Your task to perform on an android device: make emails show in primary in the gmail app Image 0: 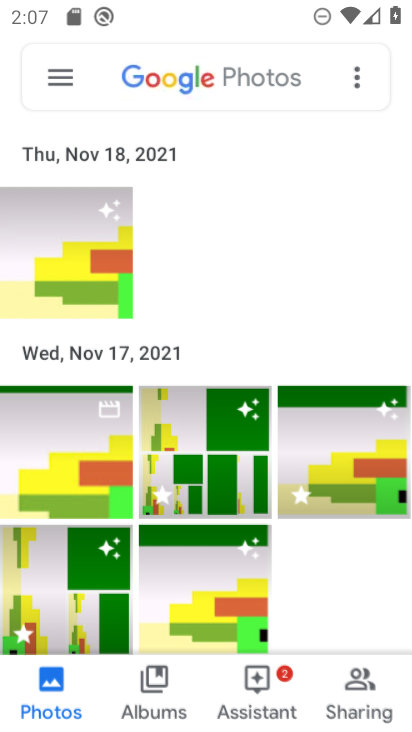
Step 0: drag from (393, 335) to (25, 220)
Your task to perform on an android device: make emails show in primary in the gmail app Image 1: 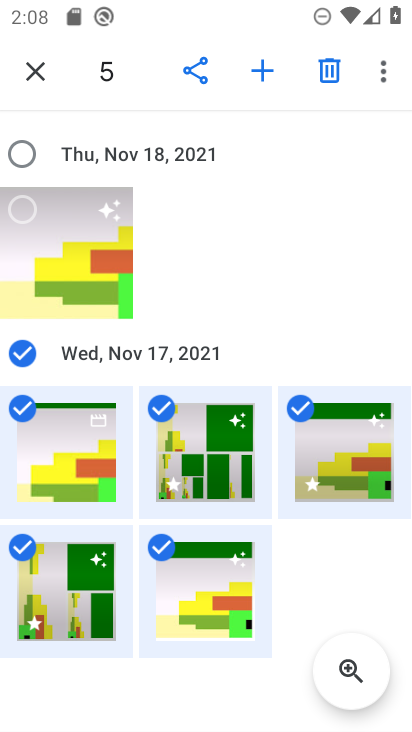
Step 1: click (197, 277)
Your task to perform on an android device: make emails show in primary in the gmail app Image 2: 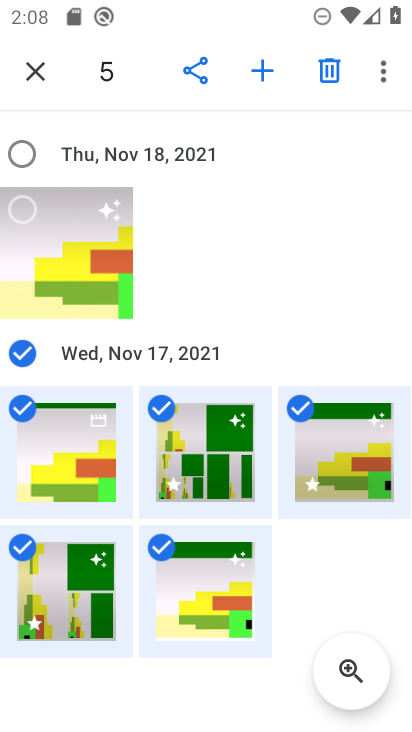
Step 2: click (214, 269)
Your task to perform on an android device: make emails show in primary in the gmail app Image 3: 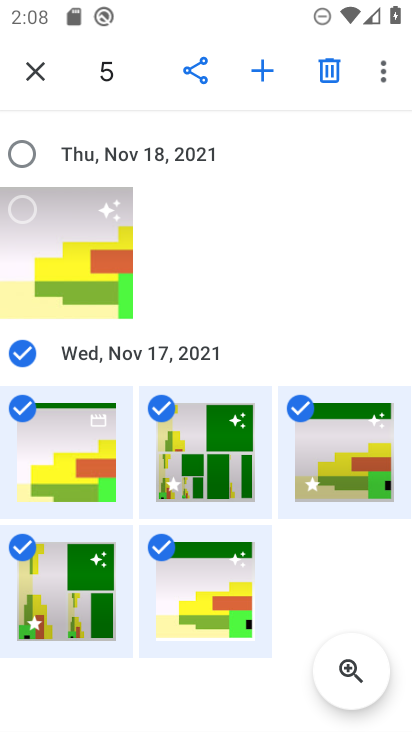
Step 3: click (230, 279)
Your task to perform on an android device: make emails show in primary in the gmail app Image 4: 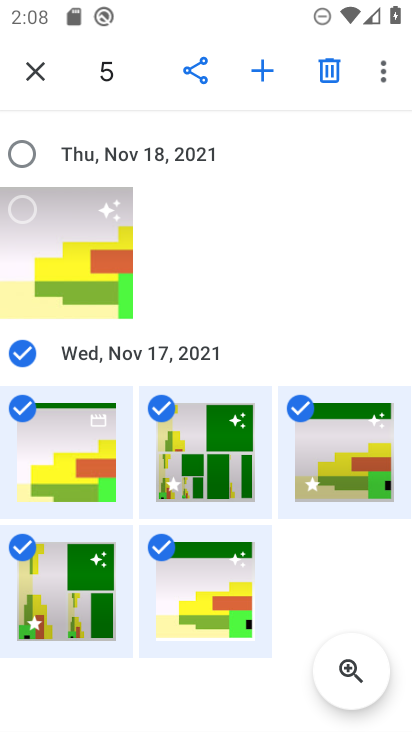
Step 4: click (238, 279)
Your task to perform on an android device: make emails show in primary in the gmail app Image 5: 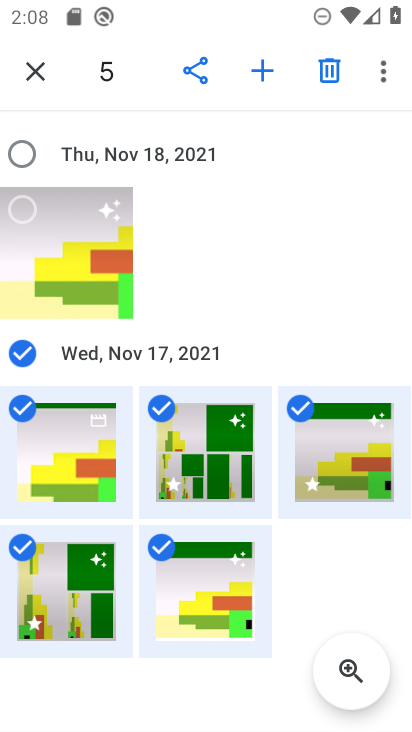
Step 5: click (239, 280)
Your task to perform on an android device: make emails show in primary in the gmail app Image 6: 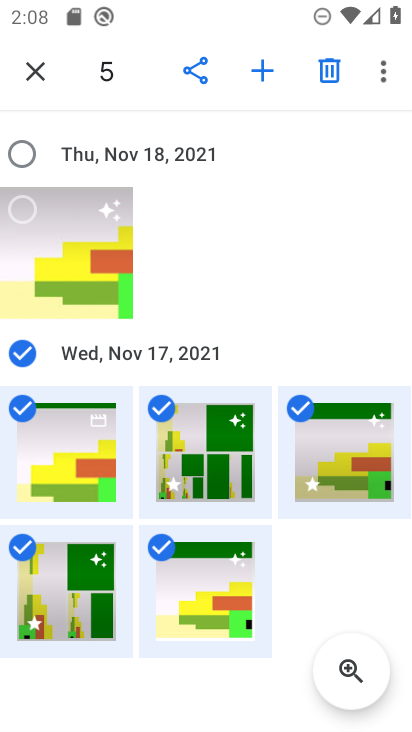
Step 6: click (243, 283)
Your task to perform on an android device: make emails show in primary in the gmail app Image 7: 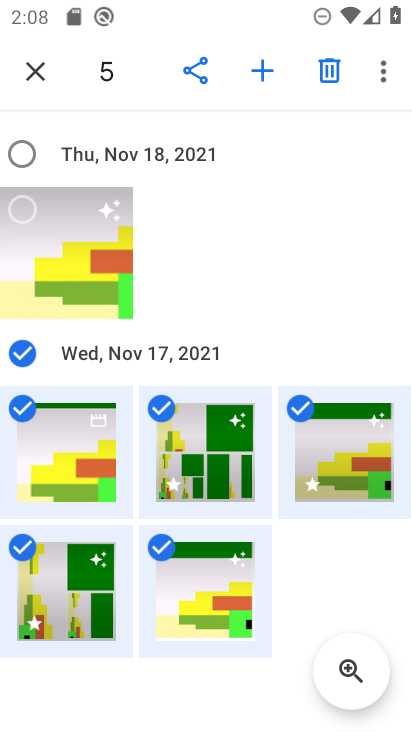
Step 7: drag from (356, 357) to (233, 89)
Your task to perform on an android device: make emails show in primary in the gmail app Image 8: 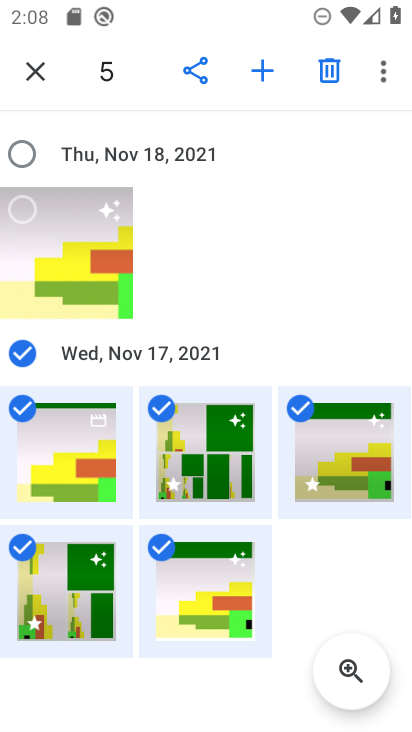
Step 8: click (254, 271)
Your task to perform on an android device: make emails show in primary in the gmail app Image 9: 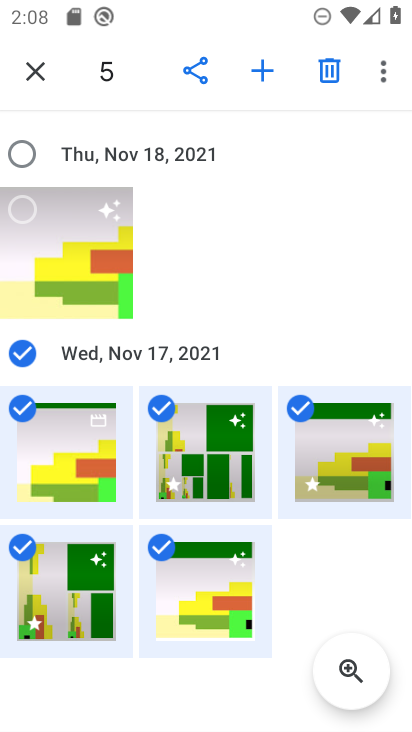
Step 9: click (253, 270)
Your task to perform on an android device: make emails show in primary in the gmail app Image 10: 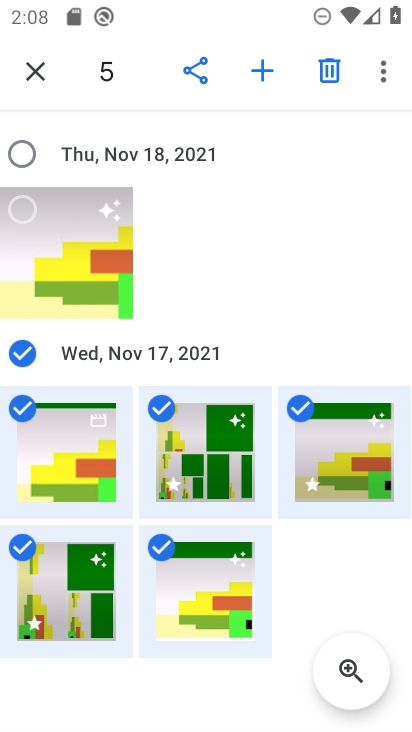
Step 10: press back button
Your task to perform on an android device: make emails show in primary in the gmail app Image 11: 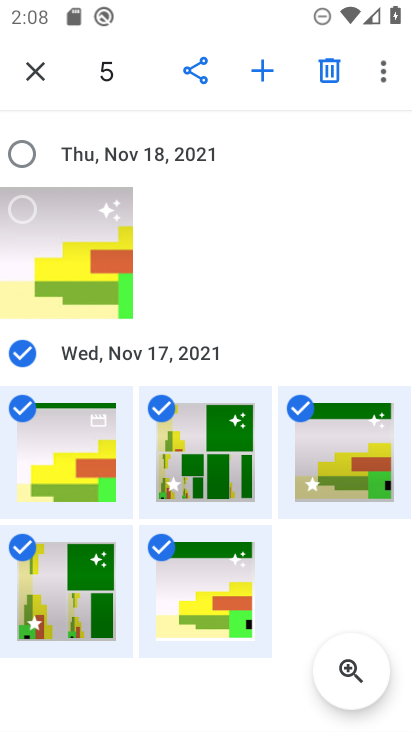
Step 11: press back button
Your task to perform on an android device: make emails show in primary in the gmail app Image 12: 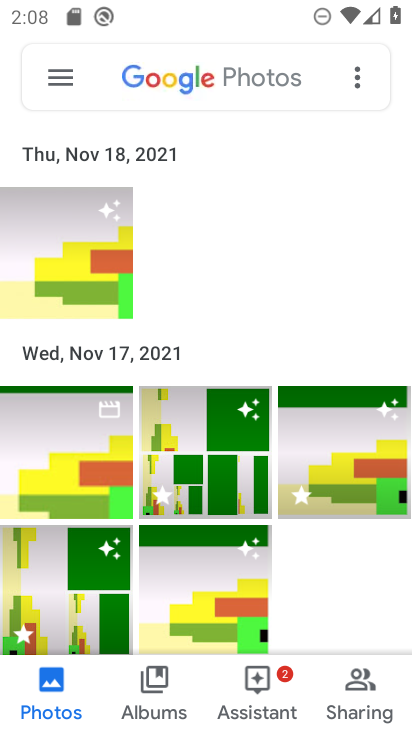
Step 12: press back button
Your task to perform on an android device: make emails show in primary in the gmail app Image 13: 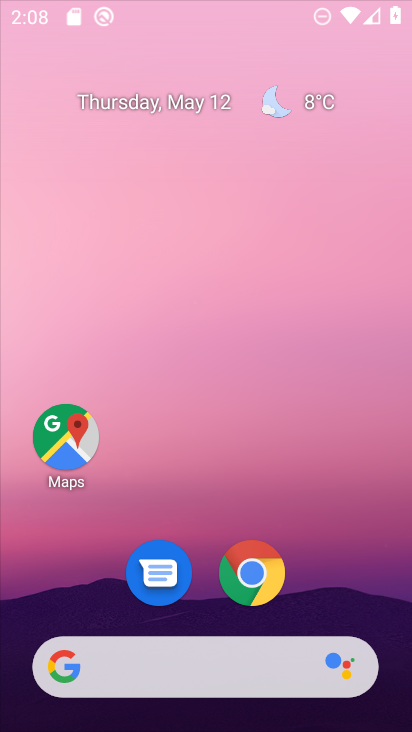
Step 13: press back button
Your task to perform on an android device: make emails show in primary in the gmail app Image 14: 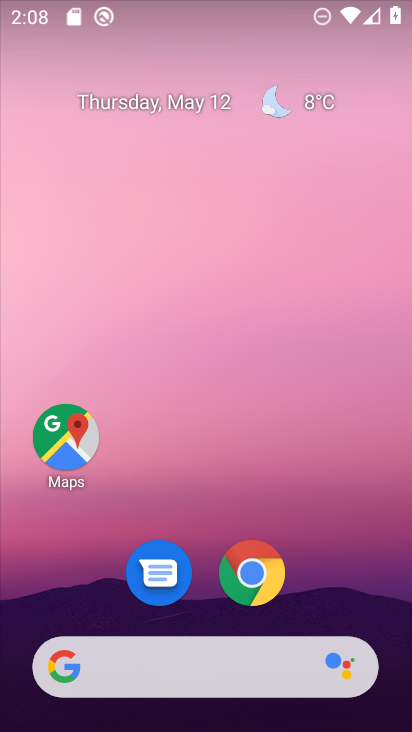
Step 14: drag from (379, 617) to (159, 11)
Your task to perform on an android device: make emails show in primary in the gmail app Image 15: 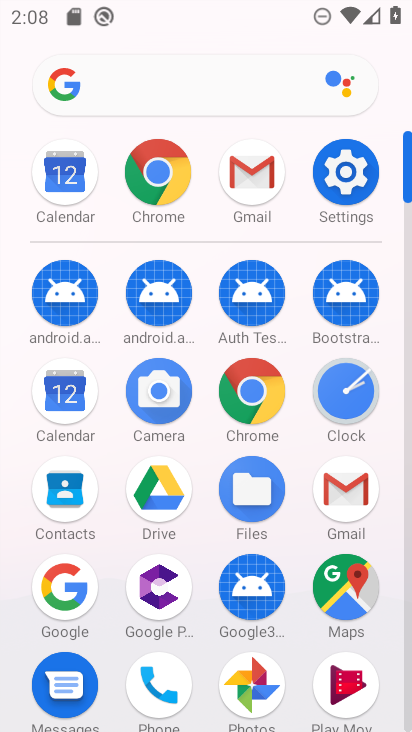
Step 15: click (345, 478)
Your task to perform on an android device: make emails show in primary in the gmail app Image 16: 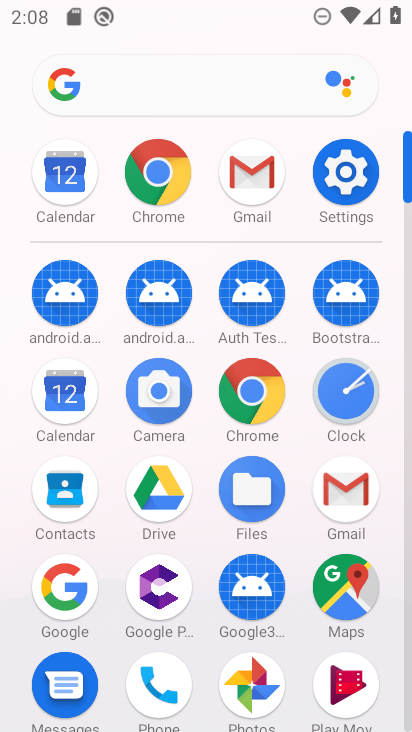
Step 16: click (354, 482)
Your task to perform on an android device: make emails show in primary in the gmail app Image 17: 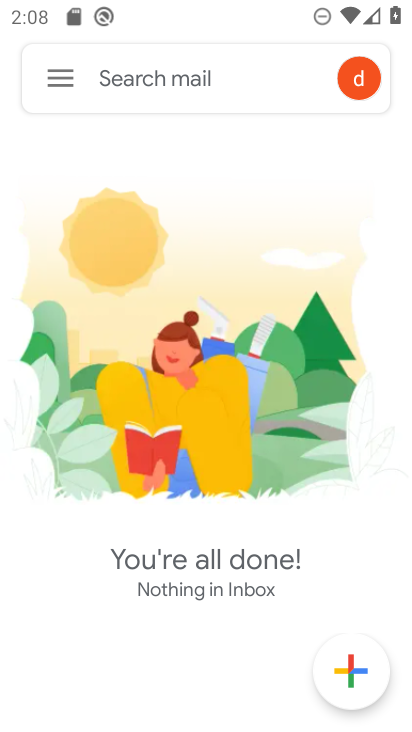
Step 17: click (58, 83)
Your task to perform on an android device: make emails show in primary in the gmail app Image 18: 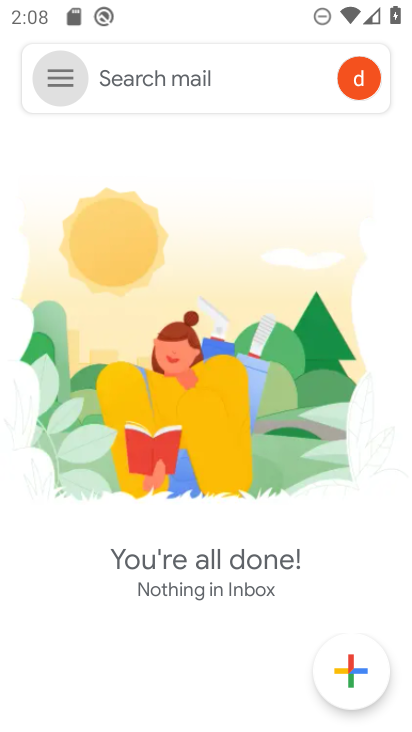
Step 18: drag from (58, 83) to (106, 175)
Your task to perform on an android device: make emails show in primary in the gmail app Image 19: 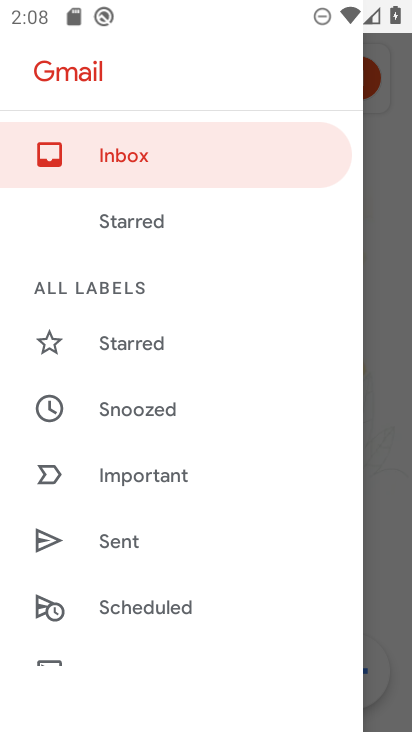
Step 19: drag from (147, 484) to (128, 24)
Your task to perform on an android device: make emails show in primary in the gmail app Image 20: 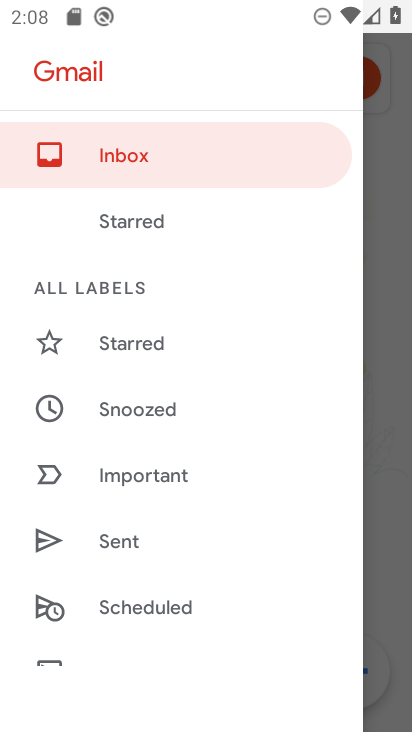
Step 20: drag from (187, 405) to (128, 97)
Your task to perform on an android device: make emails show in primary in the gmail app Image 21: 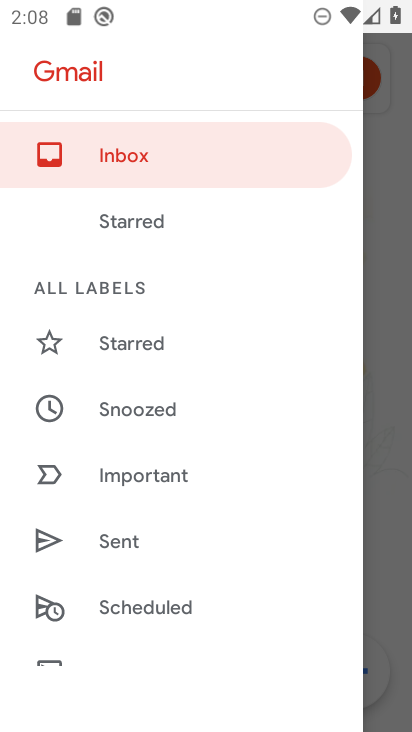
Step 21: drag from (188, 425) to (85, 25)
Your task to perform on an android device: make emails show in primary in the gmail app Image 22: 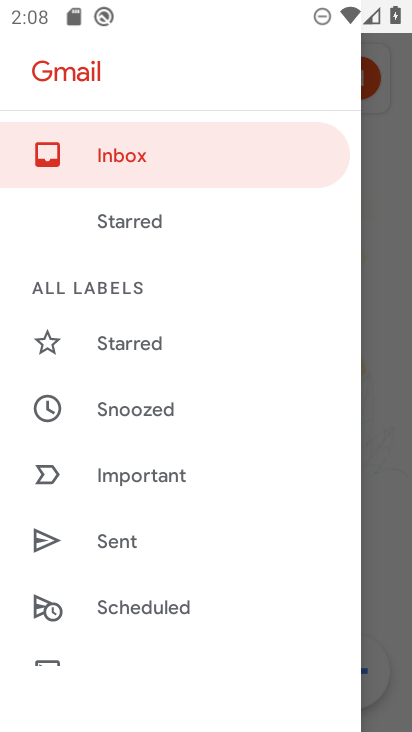
Step 22: drag from (45, 473) to (57, 58)
Your task to perform on an android device: make emails show in primary in the gmail app Image 23: 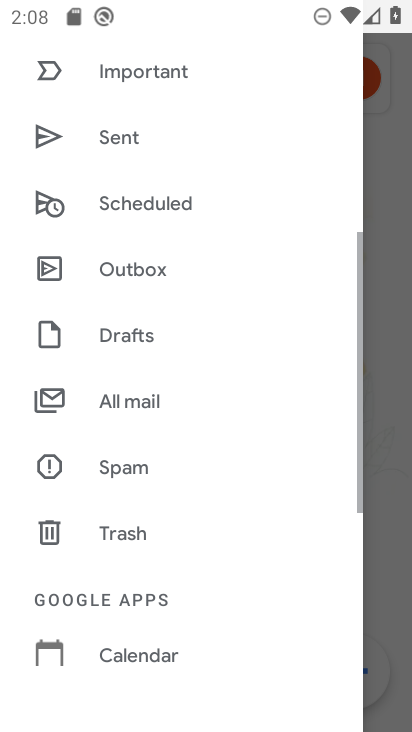
Step 23: drag from (201, 539) to (140, 200)
Your task to perform on an android device: make emails show in primary in the gmail app Image 24: 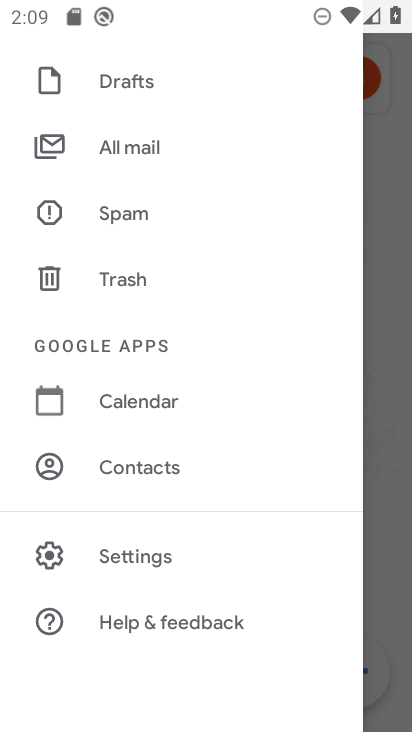
Step 24: click (126, 554)
Your task to perform on an android device: make emails show in primary in the gmail app Image 25: 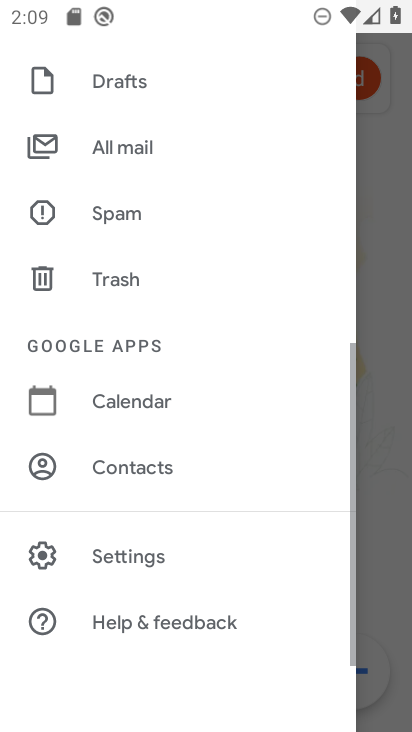
Step 25: click (126, 555)
Your task to perform on an android device: make emails show in primary in the gmail app Image 26: 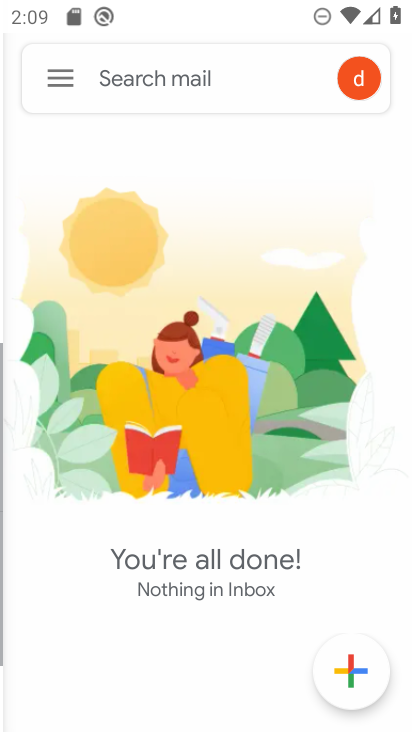
Step 26: click (126, 555)
Your task to perform on an android device: make emails show in primary in the gmail app Image 27: 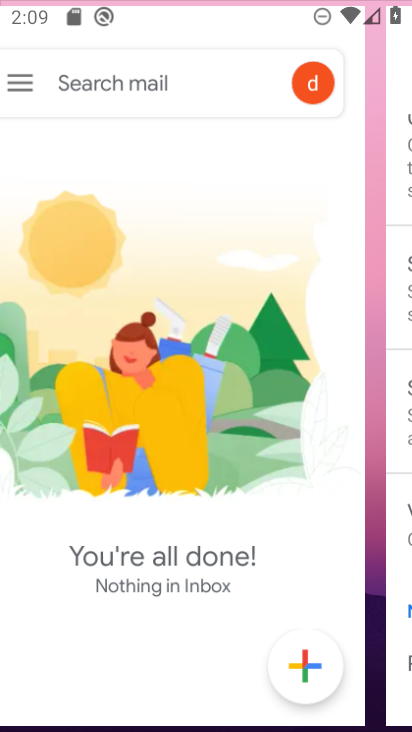
Step 27: click (128, 558)
Your task to perform on an android device: make emails show in primary in the gmail app Image 28: 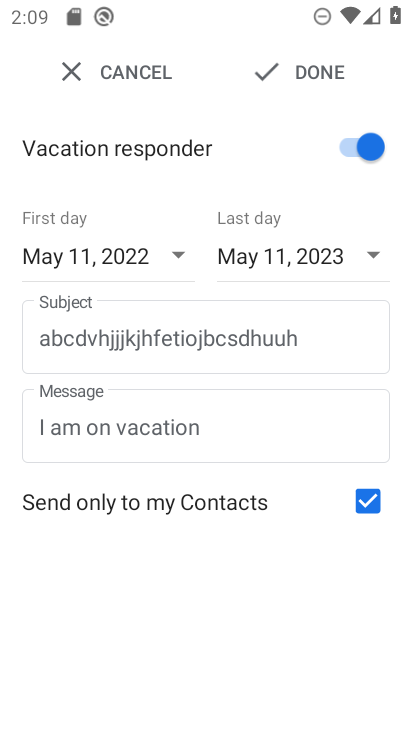
Step 28: click (69, 67)
Your task to perform on an android device: make emails show in primary in the gmail app Image 29: 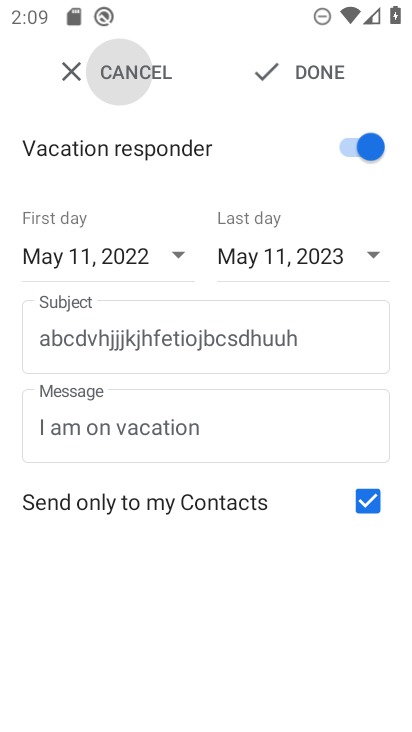
Step 29: click (70, 67)
Your task to perform on an android device: make emails show in primary in the gmail app Image 30: 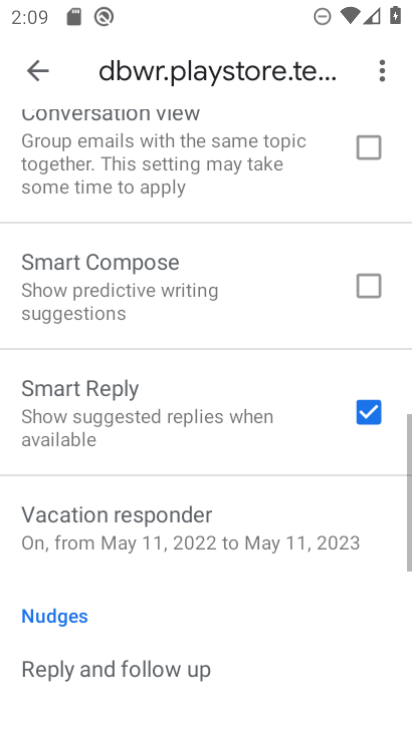
Step 30: click (70, 67)
Your task to perform on an android device: make emails show in primary in the gmail app Image 31: 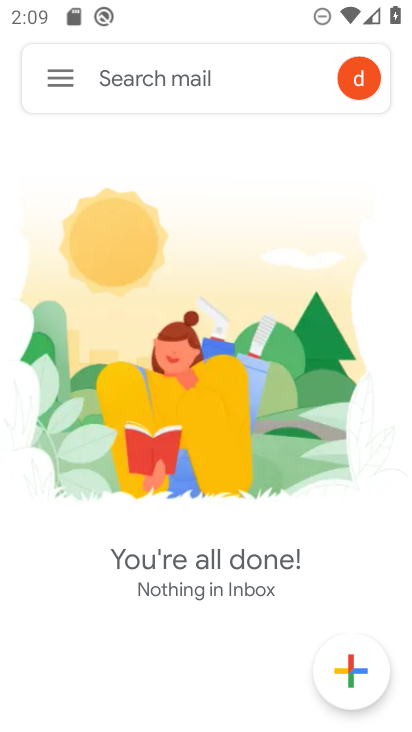
Step 31: click (62, 85)
Your task to perform on an android device: make emails show in primary in the gmail app Image 32: 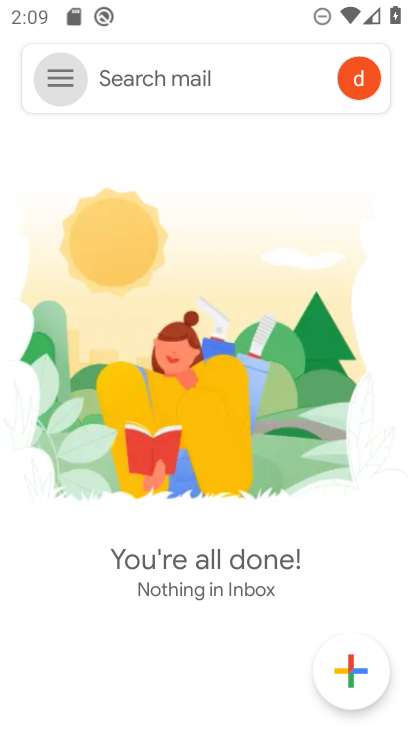
Step 32: click (62, 85)
Your task to perform on an android device: make emails show in primary in the gmail app Image 33: 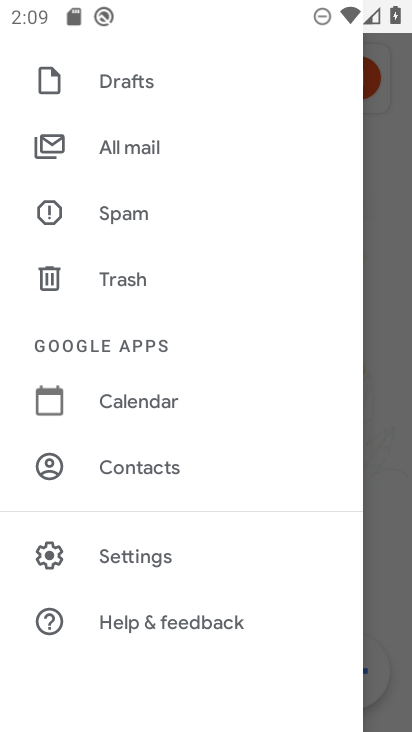
Step 33: click (139, 564)
Your task to perform on an android device: make emails show in primary in the gmail app Image 34: 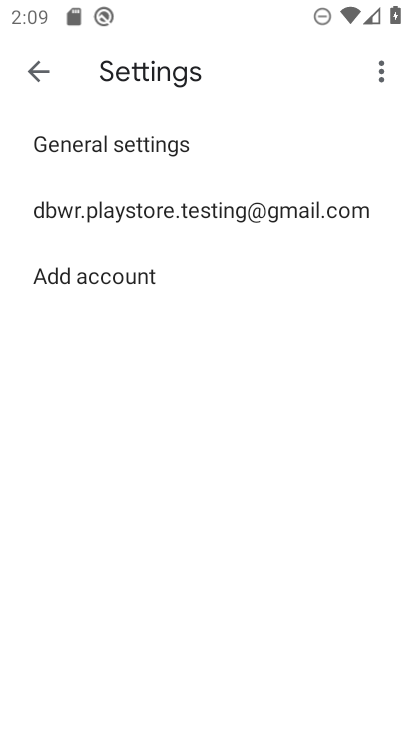
Step 34: click (97, 210)
Your task to perform on an android device: make emails show in primary in the gmail app Image 35: 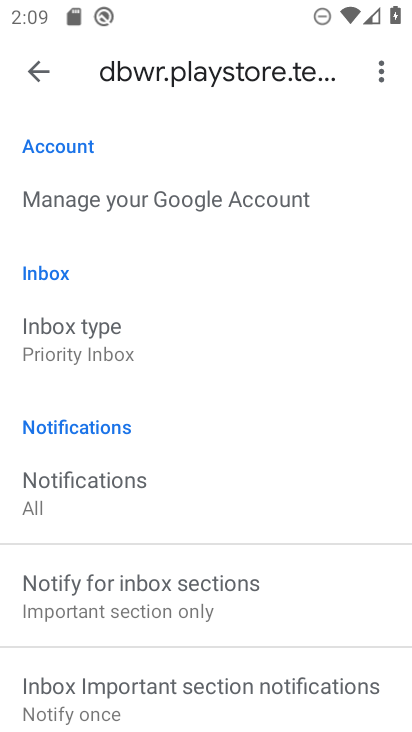
Step 35: click (79, 347)
Your task to perform on an android device: make emails show in primary in the gmail app Image 36: 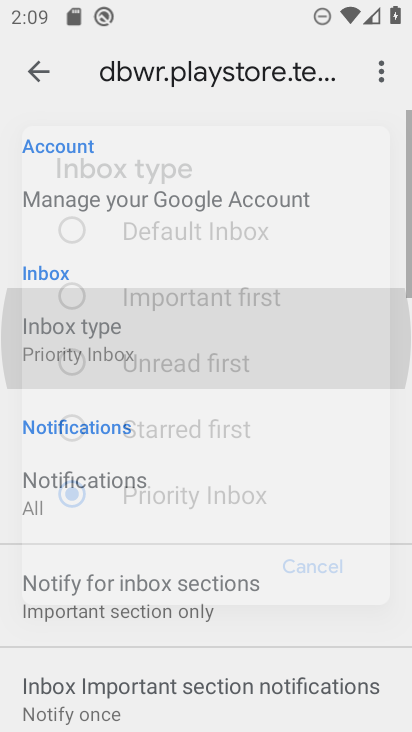
Step 36: click (79, 347)
Your task to perform on an android device: make emails show in primary in the gmail app Image 37: 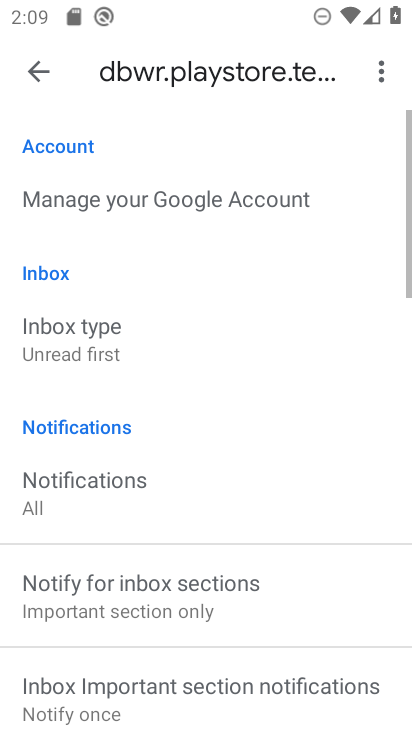
Step 37: click (79, 345)
Your task to perform on an android device: make emails show in primary in the gmail app Image 38: 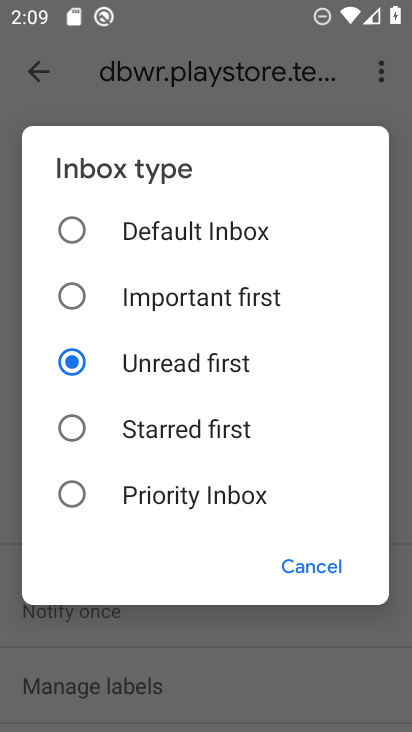
Step 38: click (105, 519)
Your task to perform on an android device: make emails show in primary in the gmail app Image 39: 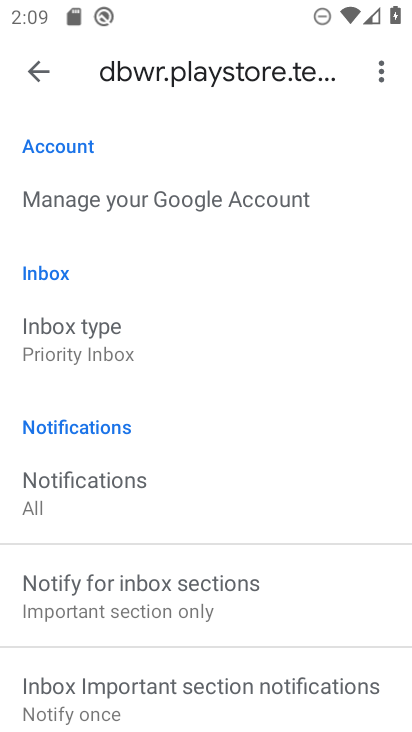
Step 39: click (68, 346)
Your task to perform on an android device: make emails show in primary in the gmail app Image 40: 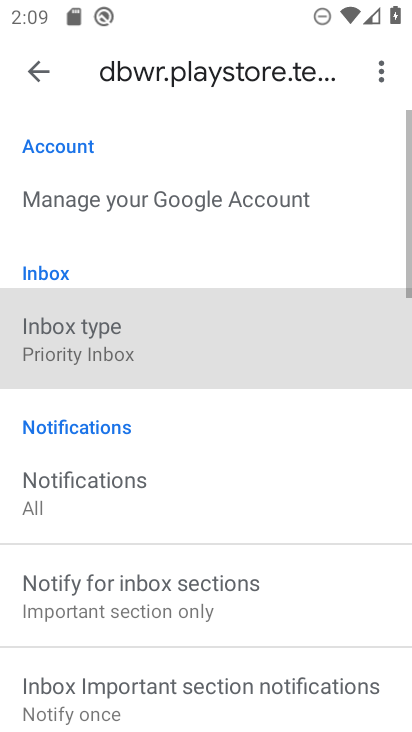
Step 40: click (69, 347)
Your task to perform on an android device: make emails show in primary in the gmail app Image 41: 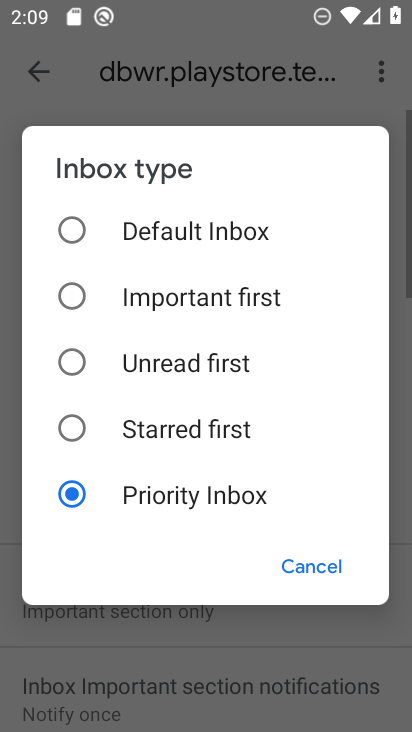
Step 41: click (70, 350)
Your task to perform on an android device: make emails show in primary in the gmail app Image 42: 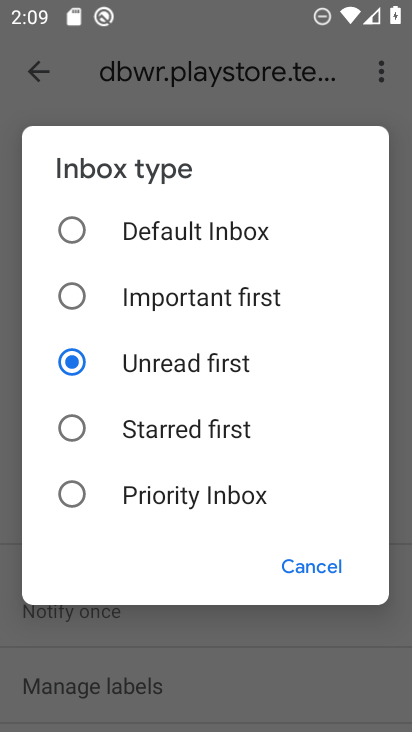
Step 42: click (78, 493)
Your task to perform on an android device: make emails show in primary in the gmail app Image 43: 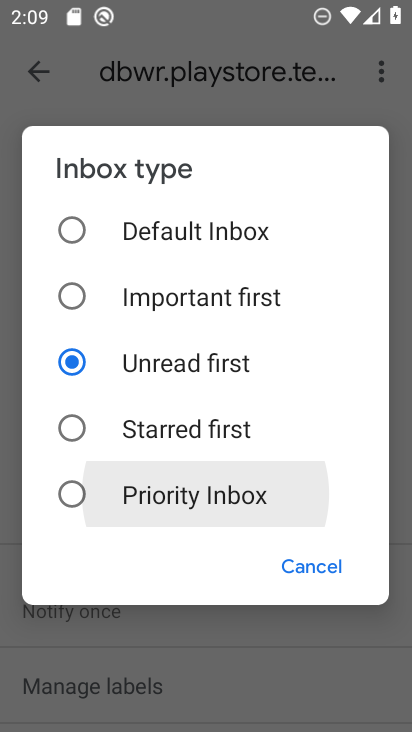
Step 43: click (73, 484)
Your task to perform on an android device: make emails show in primary in the gmail app Image 44: 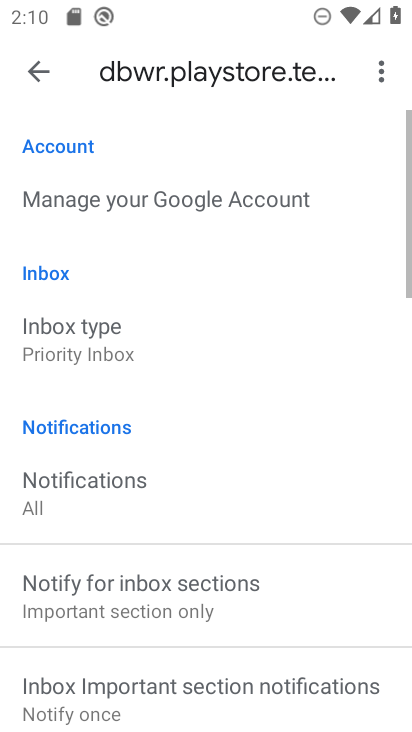
Step 44: click (71, 484)
Your task to perform on an android device: make emails show in primary in the gmail app Image 45: 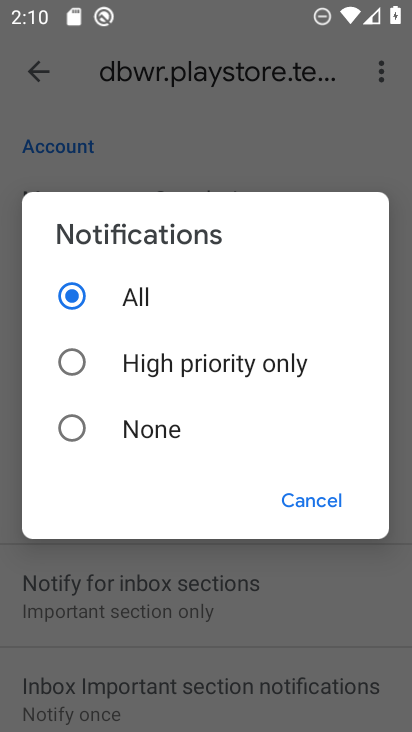
Step 45: click (318, 497)
Your task to perform on an android device: make emails show in primary in the gmail app Image 46: 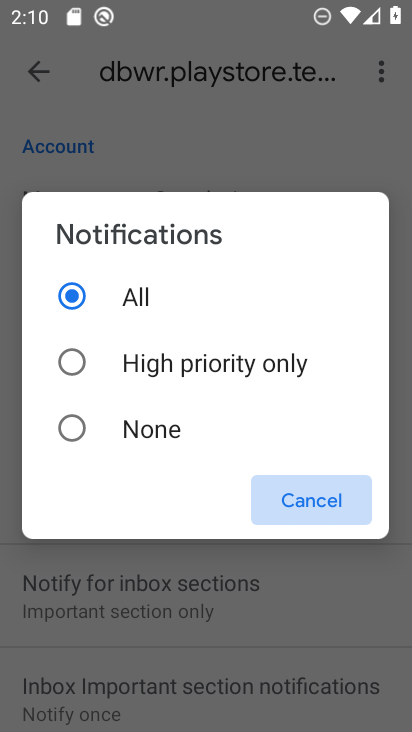
Step 46: click (315, 493)
Your task to perform on an android device: make emails show in primary in the gmail app Image 47: 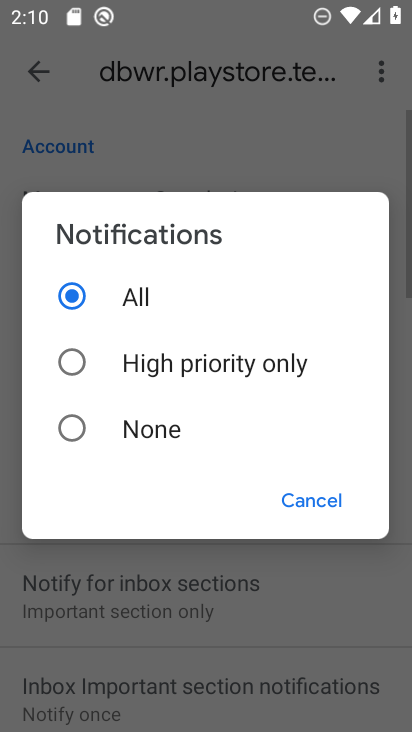
Step 47: click (323, 494)
Your task to perform on an android device: make emails show in primary in the gmail app Image 48: 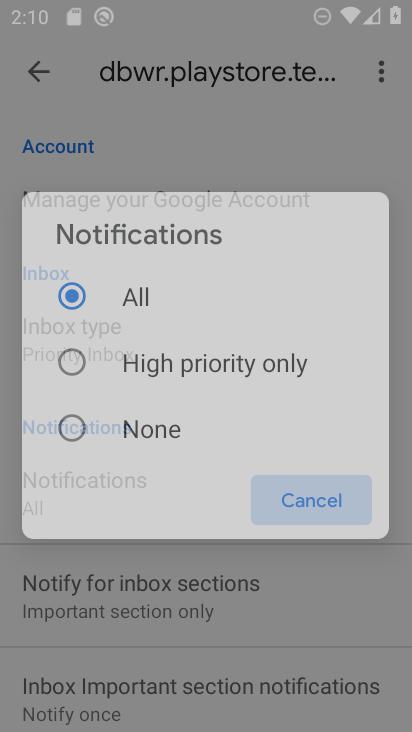
Step 48: click (315, 500)
Your task to perform on an android device: make emails show in primary in the gmail app Image 49: 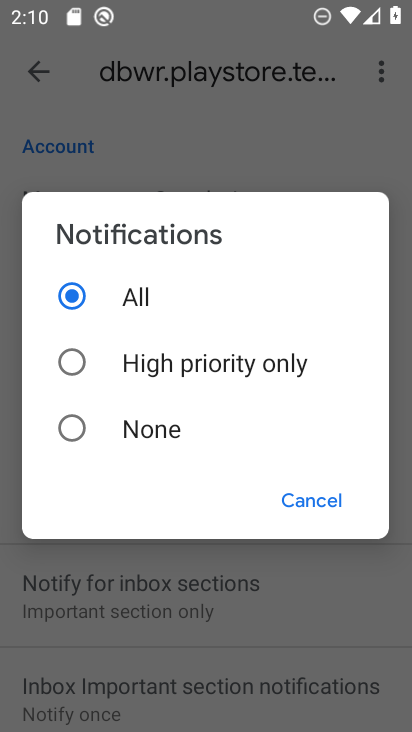
Step 49: click (323, 505)
Your task to perform on an android device: make emails show in primary in the gmail app Image 50: 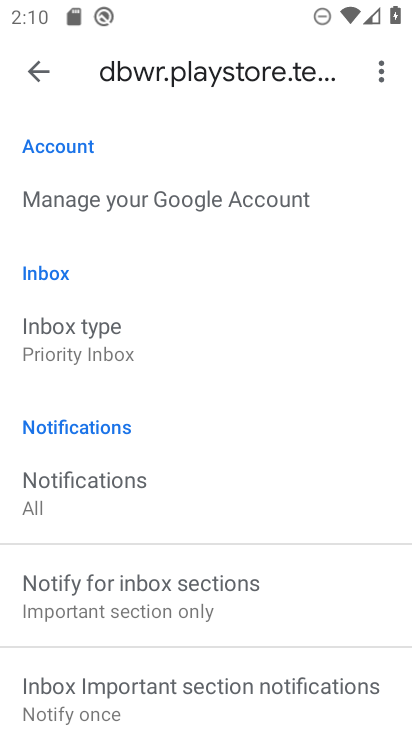
Step 50: task complete